Your task to perform on an android device: open device folders in google photos Image 0: 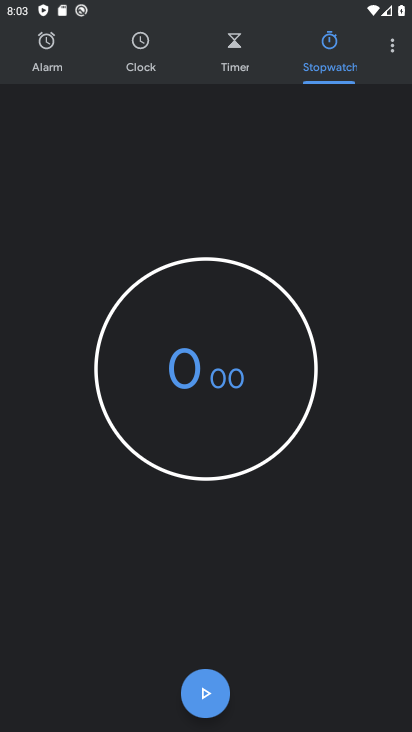
Step 0: press home button
Your task to perform on an android device: open device folders in google photos Image 1: 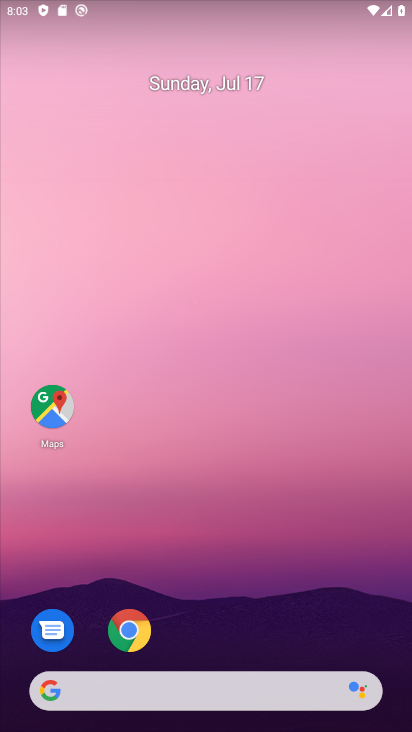
Step 1: drag from (329, 605) to (336, 146)
Your task to perform on an android device: open device folders in google photos Image 2: 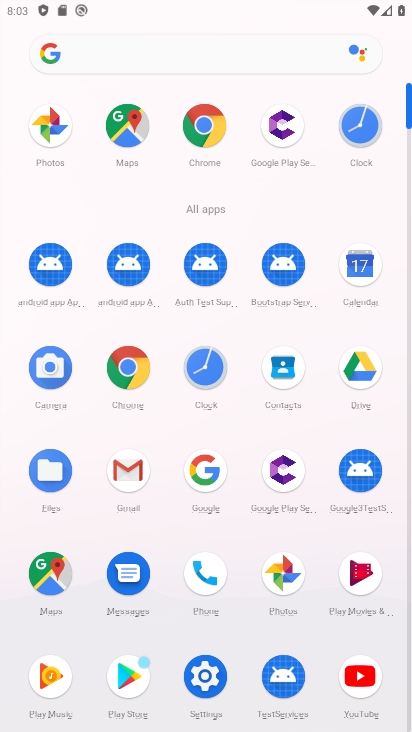
Step 2: click (285, 566)
Your task to perform on an android device: open device folders in google photos Image 3: 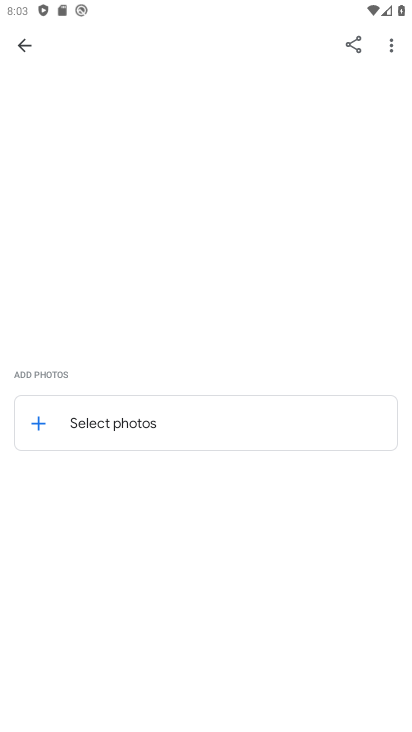
Step 3: press back button
Your task to perform on an android device: open device folders in google photos Image 4: 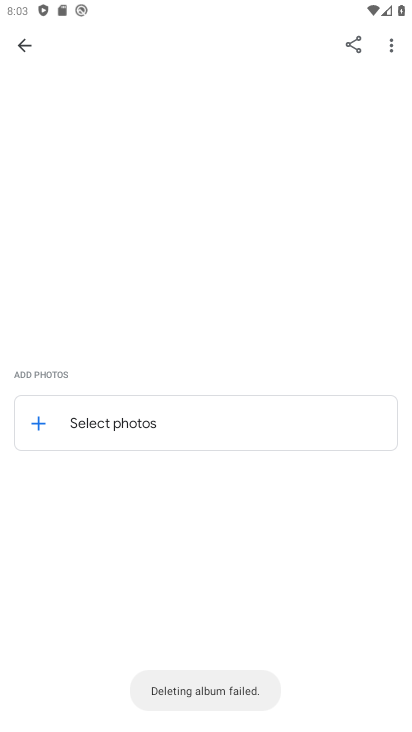
Step 4: press back button
Your task to perform on an android device: open device folders in google photos Image 5: 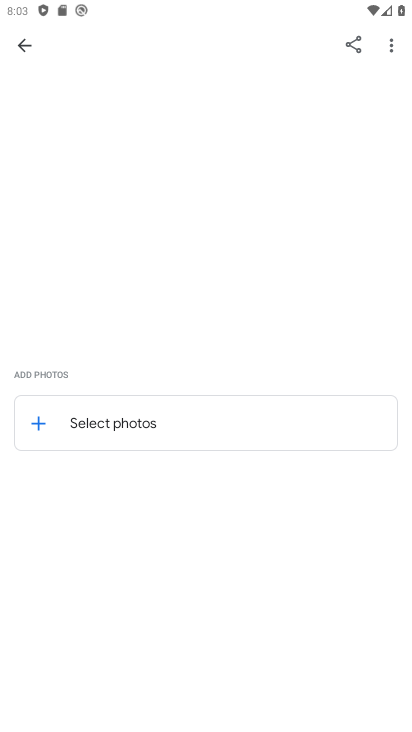
Step 5: click (23, 43)
Your task to perform on an android device: open device folders in google photos Image 6: 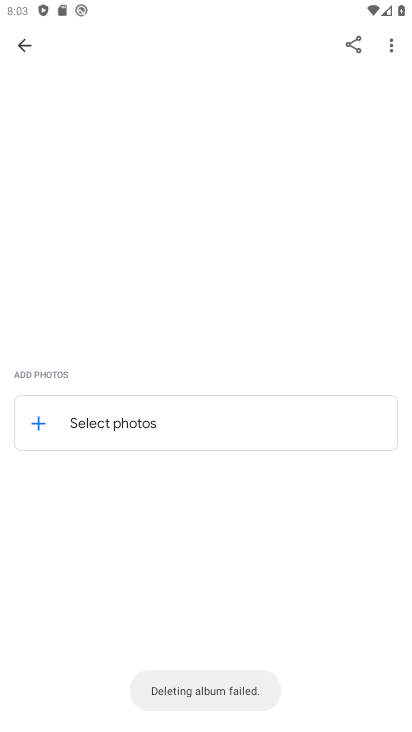
Step 6: click (23, 43)
Your task to perform on an android device: open device folders in google photos Image 7: 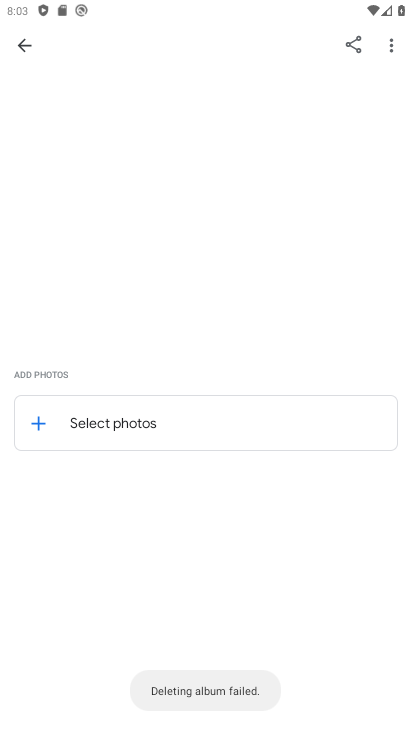
Step 7: click (23, 43)
Your task to perform on an android device: open device folders in google photos Image 8: 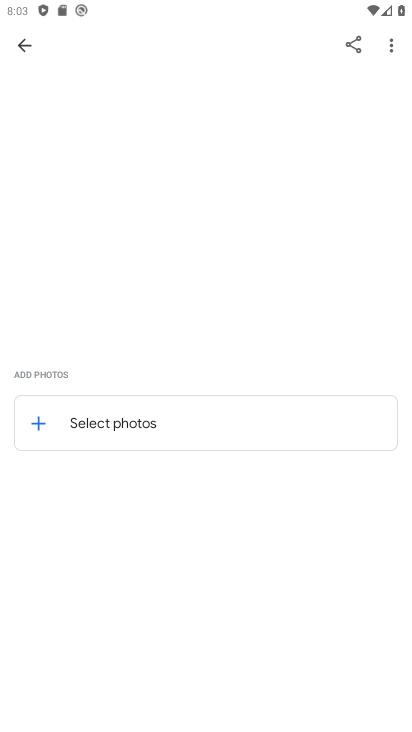
Step 8: task complete